Your task to perform on an android device: Open the calendar and show me this week's events Image 0: 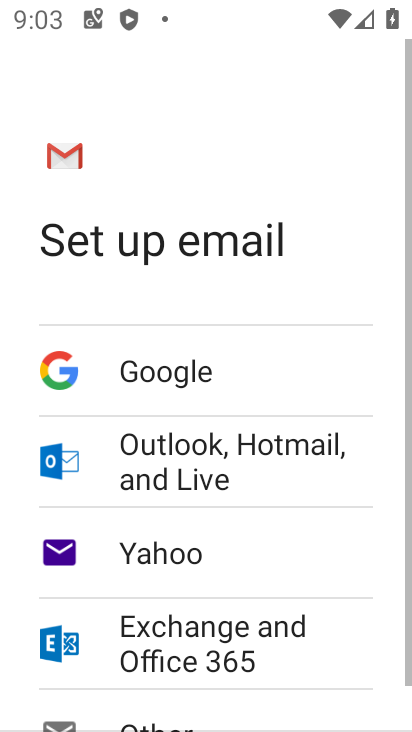
Step 0: press home button
Your task to perform on an android device: Open the calendar and show me this week's events Image 1: 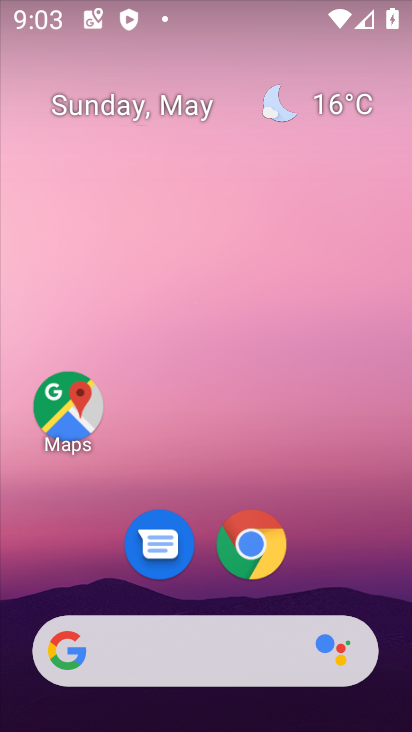
Step 1: drag from (330, 548) to (277, 138)
Your task to perform on an android device: Open the calendar and show me this week's events Image 2: 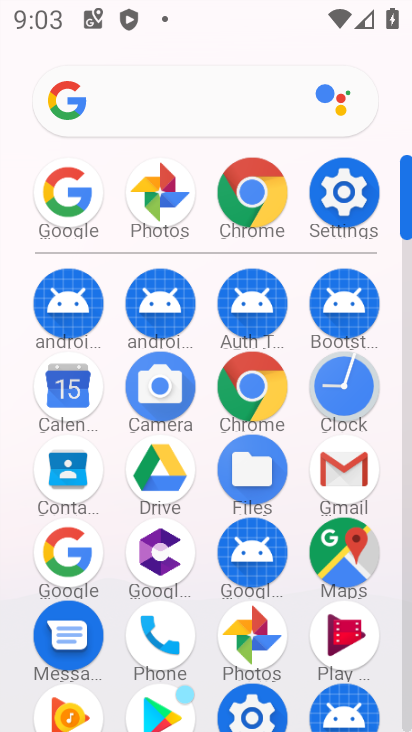
Step 2: click (76, 398)
Your task to perform on an android device: Open the calendar and show me this week's events Image 3: 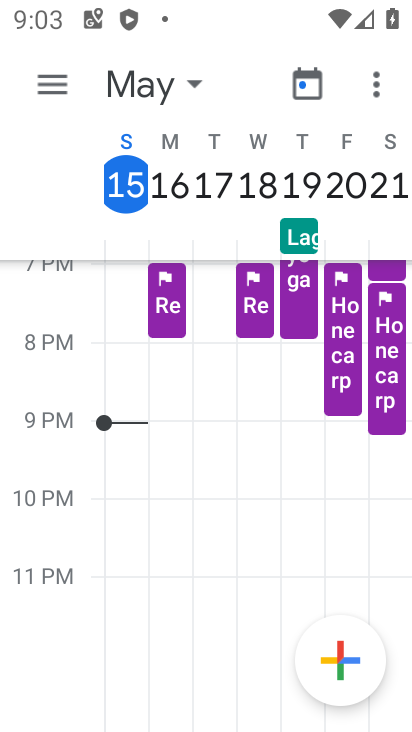
Step 3: task complete